Your task to perform on an android device: Open Youtube and go to "Your channel" Image 0: 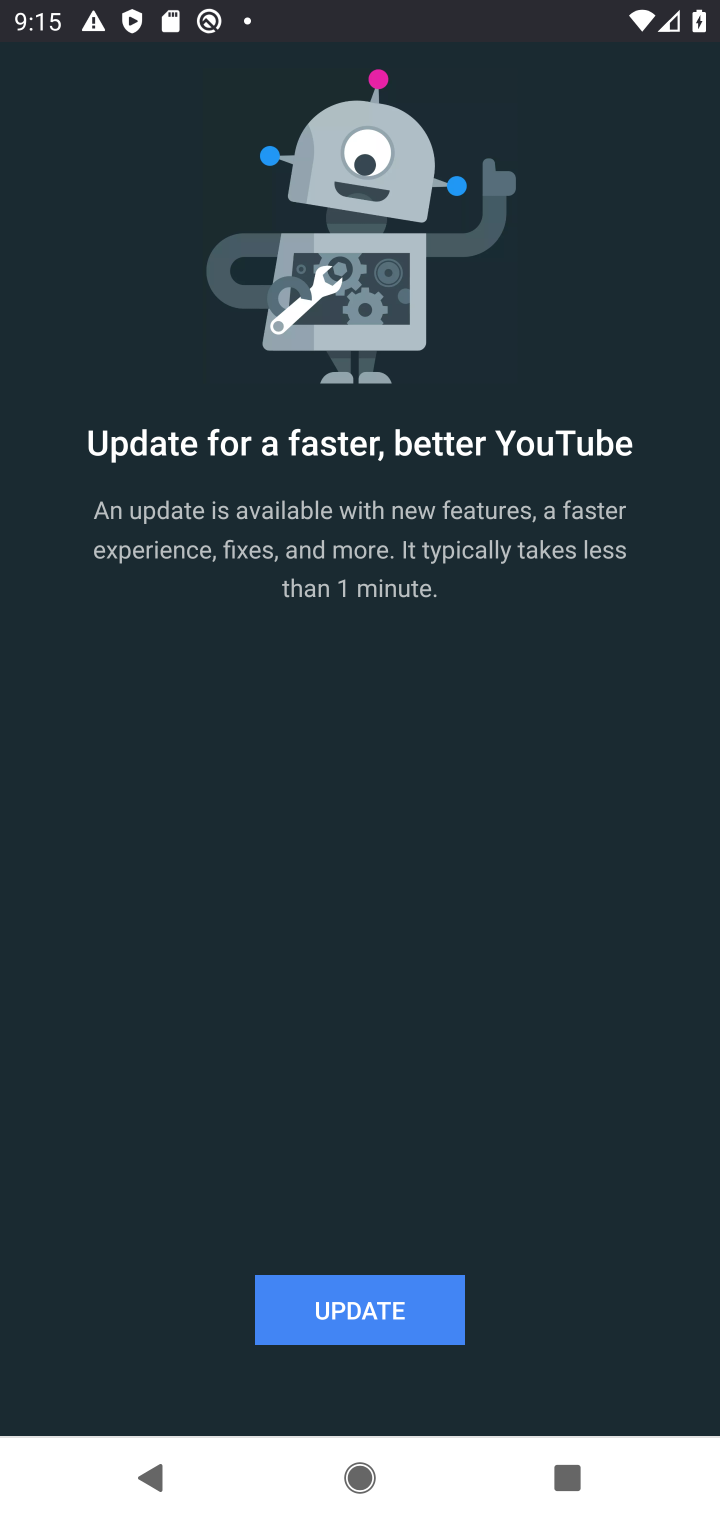
Step 0: press home button
Your task to perform on an android device: Open Youtube and go to "Your channel" Image 1: 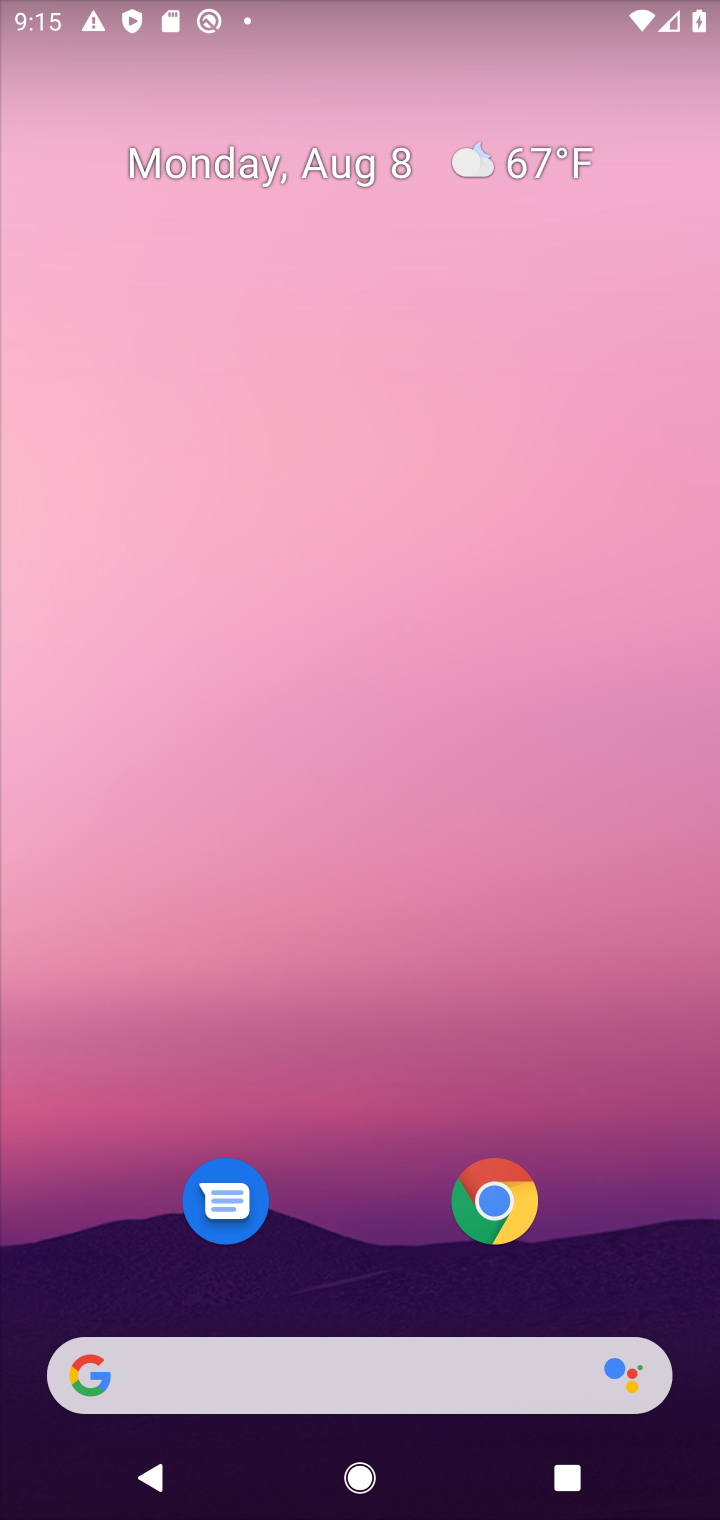
Step 1: drag from (357, 1232) to (364, 390)
Your task to perform on an android device: Open Youtube and go to "Your channel" Image 2: 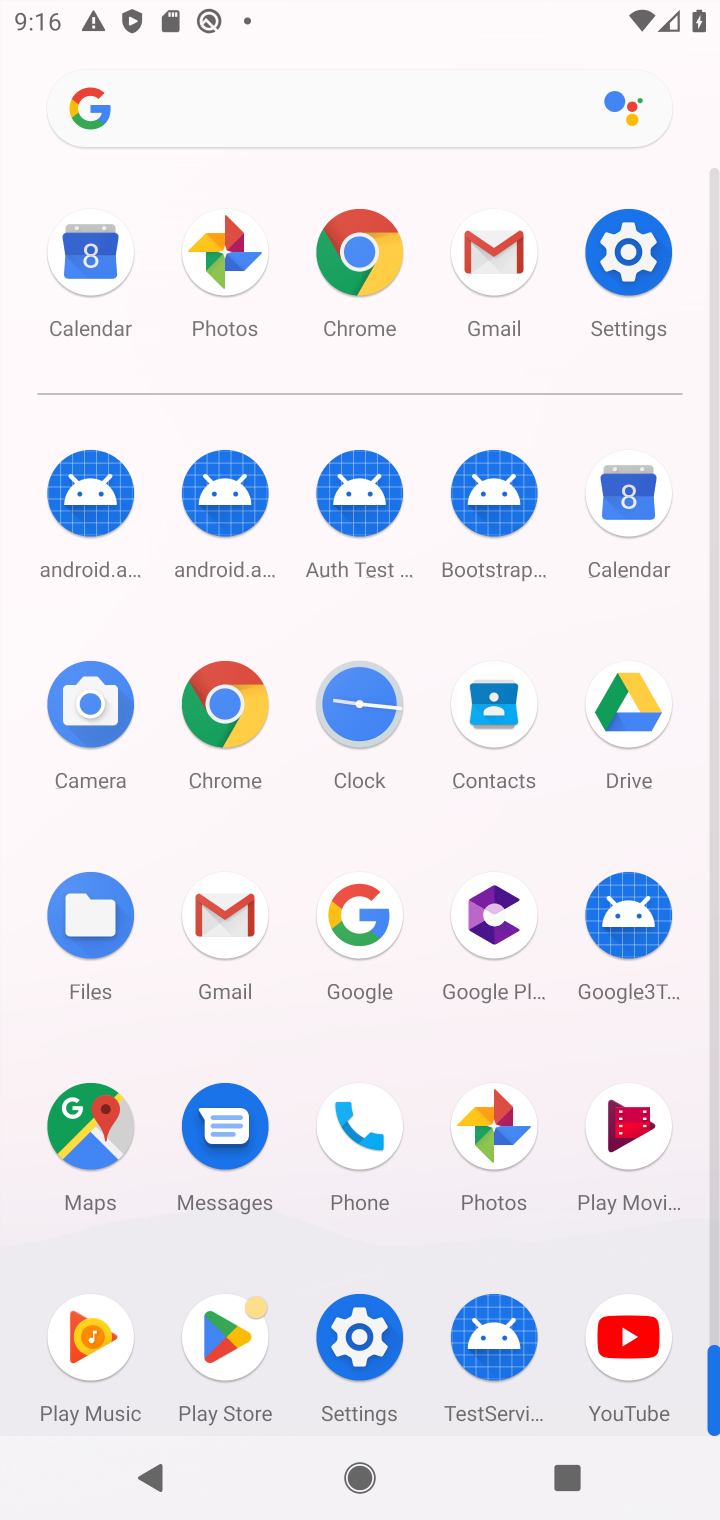
Step 2: click (624, 1345)
Your task to perform on an android device: Open Youtube and go to "Your channel" Image 3: 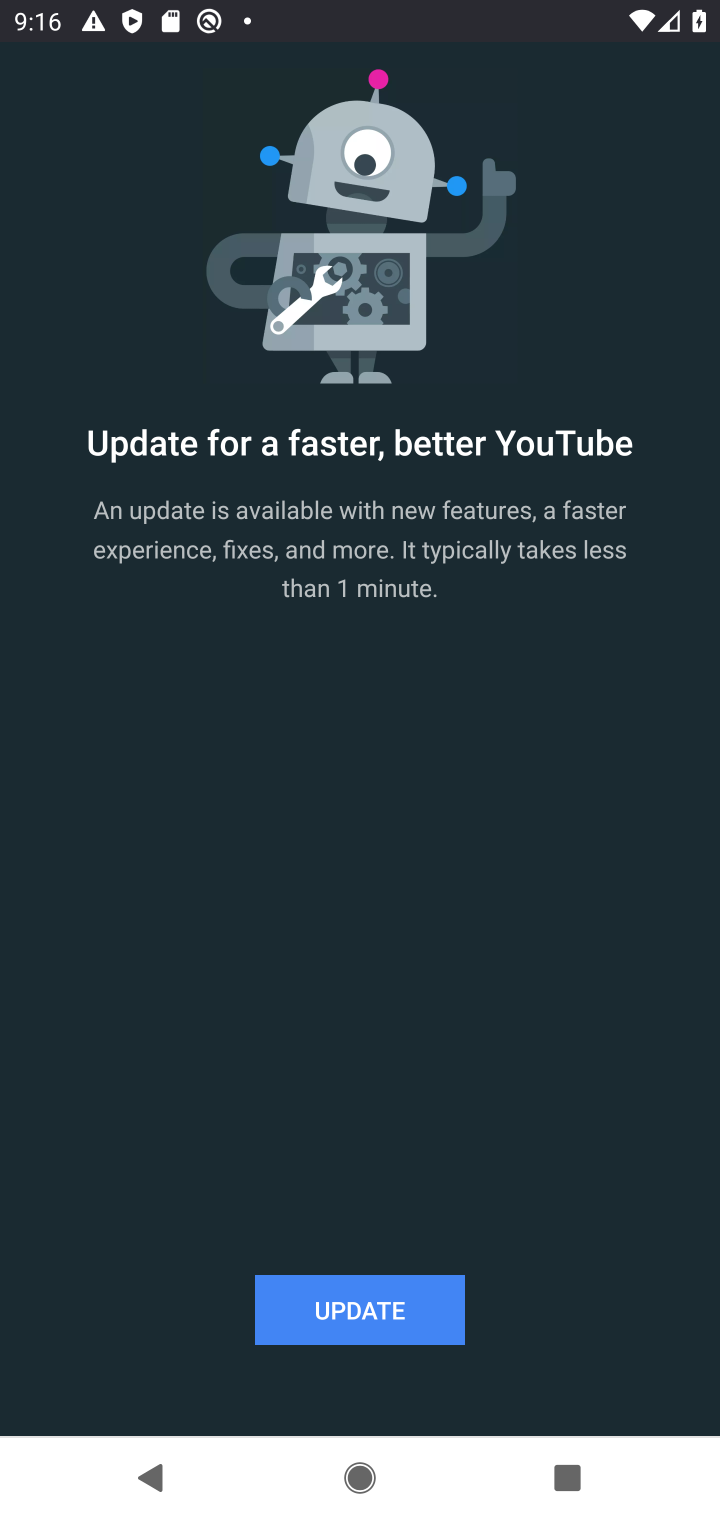
Step 3: click (373, 1307)
Your task to perform on an android device: Open Youtube and go to "Your channel" Image 4: 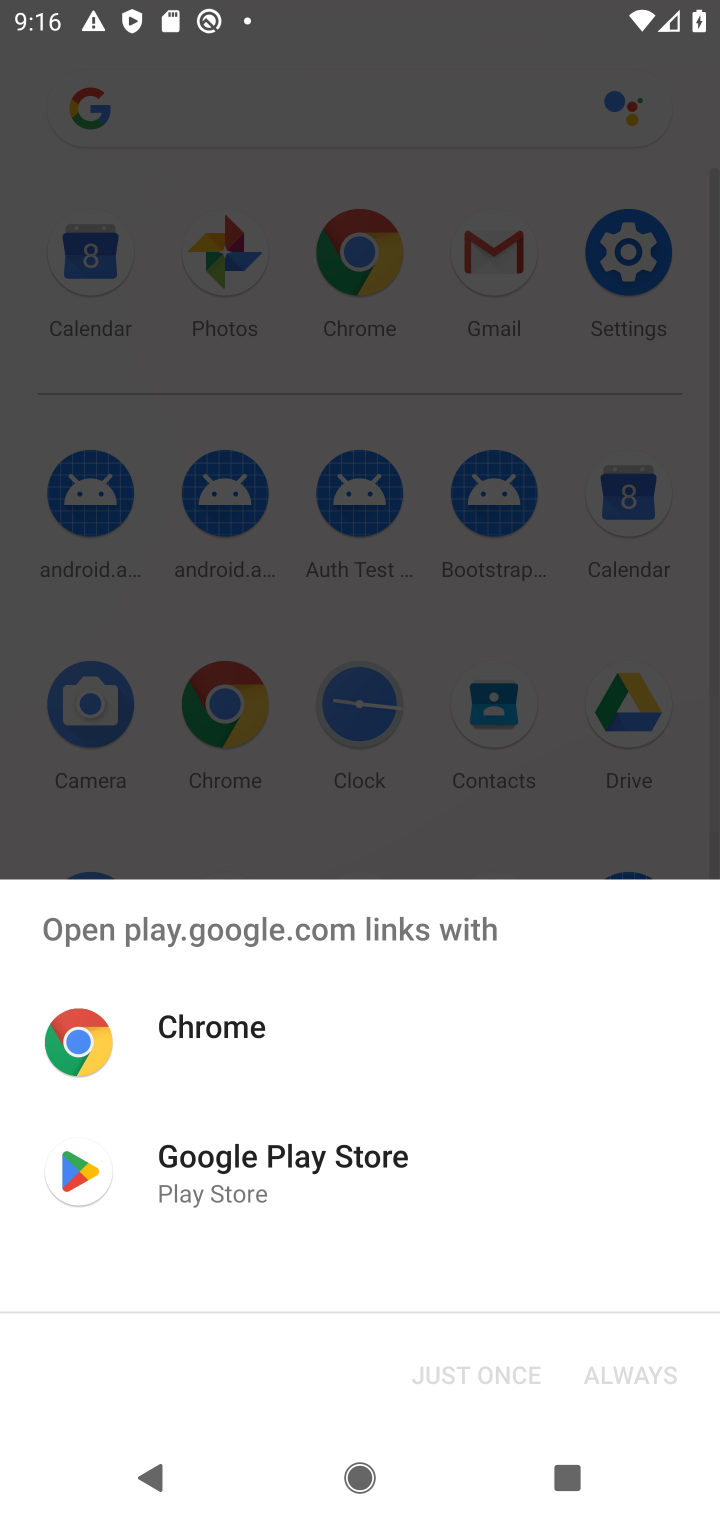
Step 4: click (176, 1155)
Your task to perform on an android device: Open Youtube and go to "Your channel" Image 5: 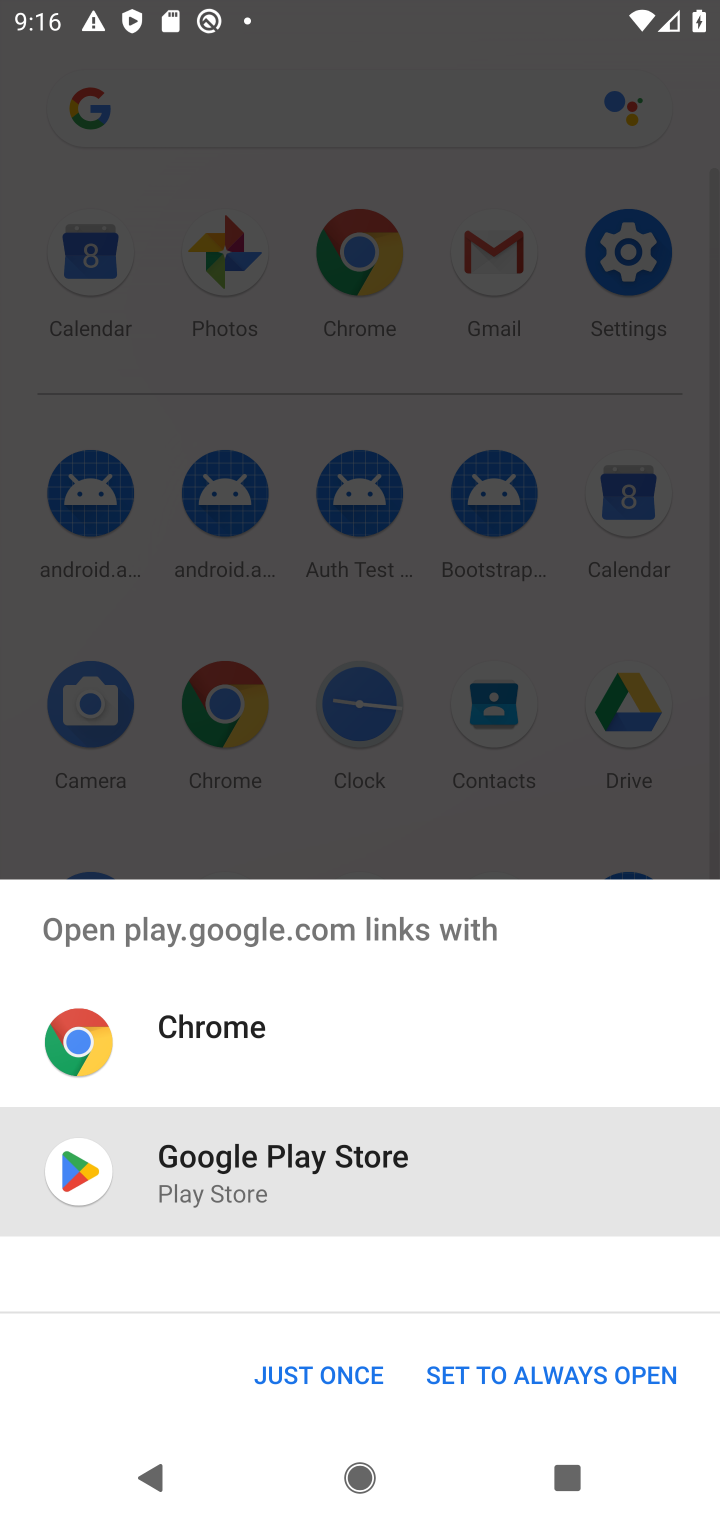
Step 5: click (330, 1382)
Your task to perform on an android device: Open Youtube and go to "Your channel" Image 6: 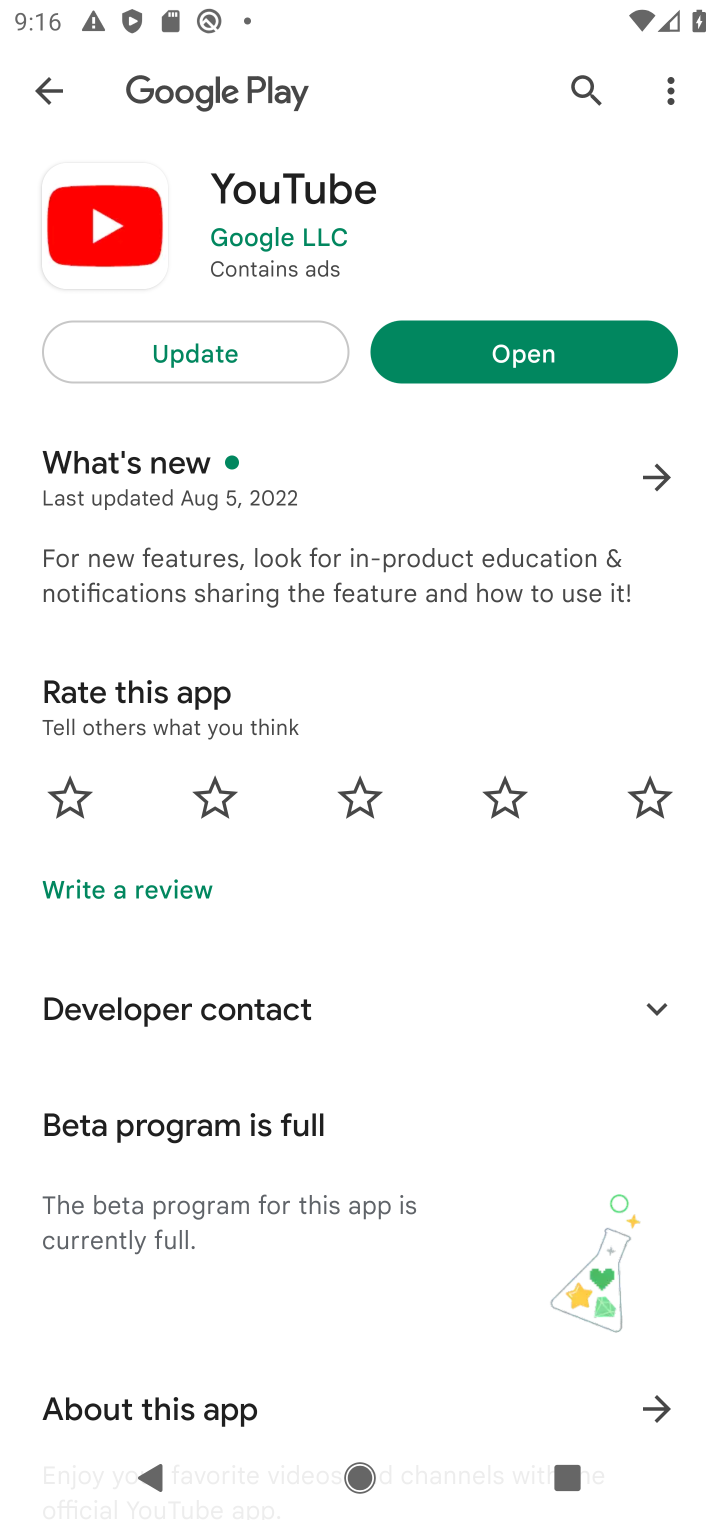
Step 6: click (209, 345)
Your task to perform on an android device: Open Youtube and go to "Your channel" Image 7: 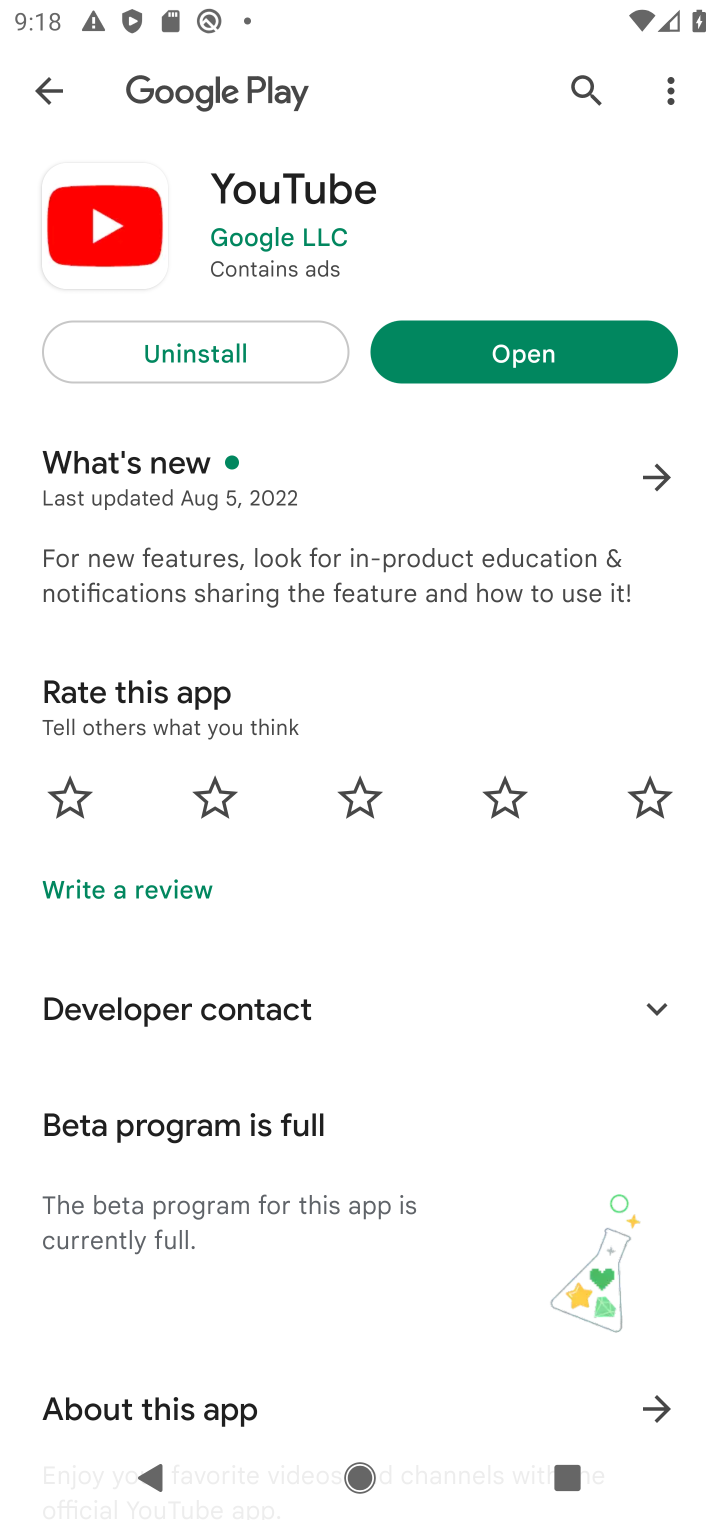
Step 7: click (492, 350)
Your task to perform on an android device: Open Youtube and go to "Your channel" Image 8: 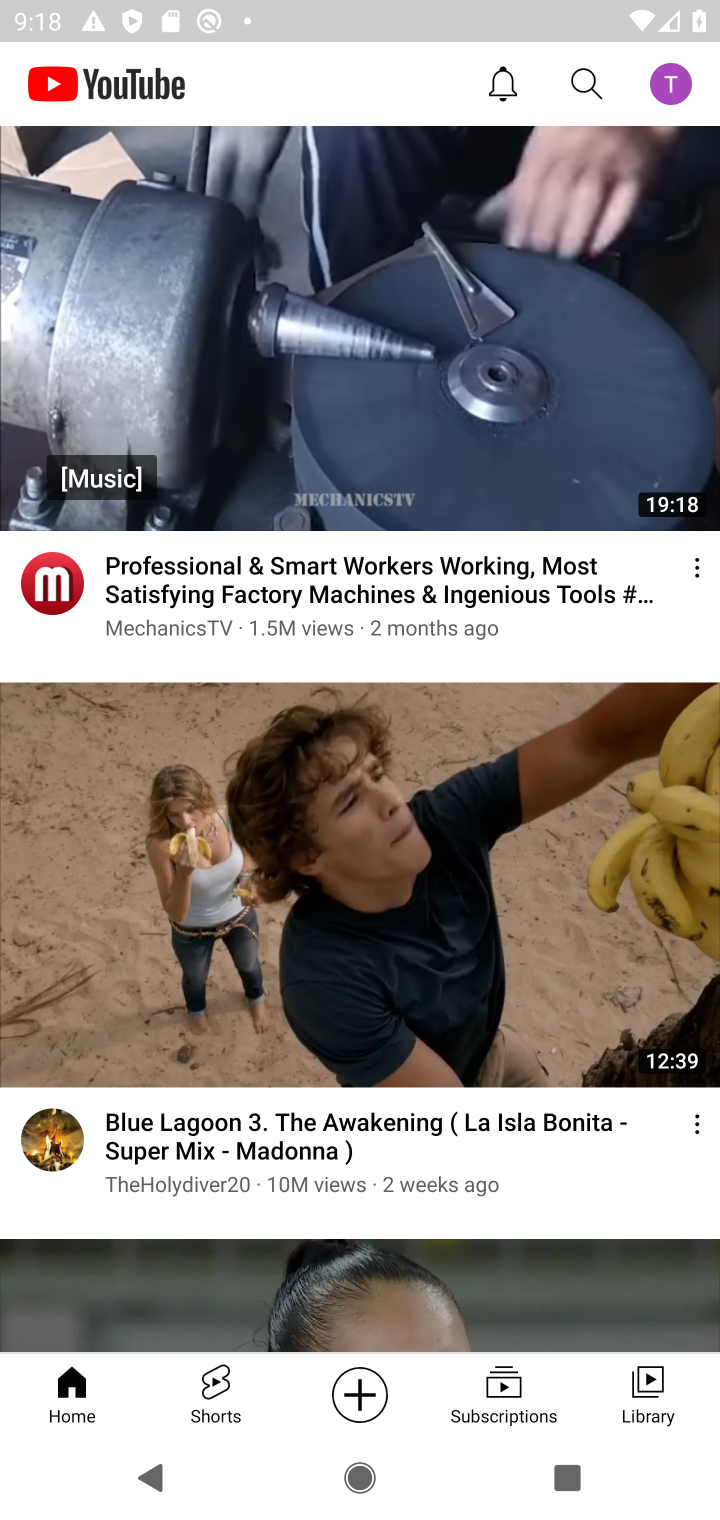
Step 8: click (668, 78)
Your task to perform on an android device: Open Youtube and go to "Your channel" Image 9: 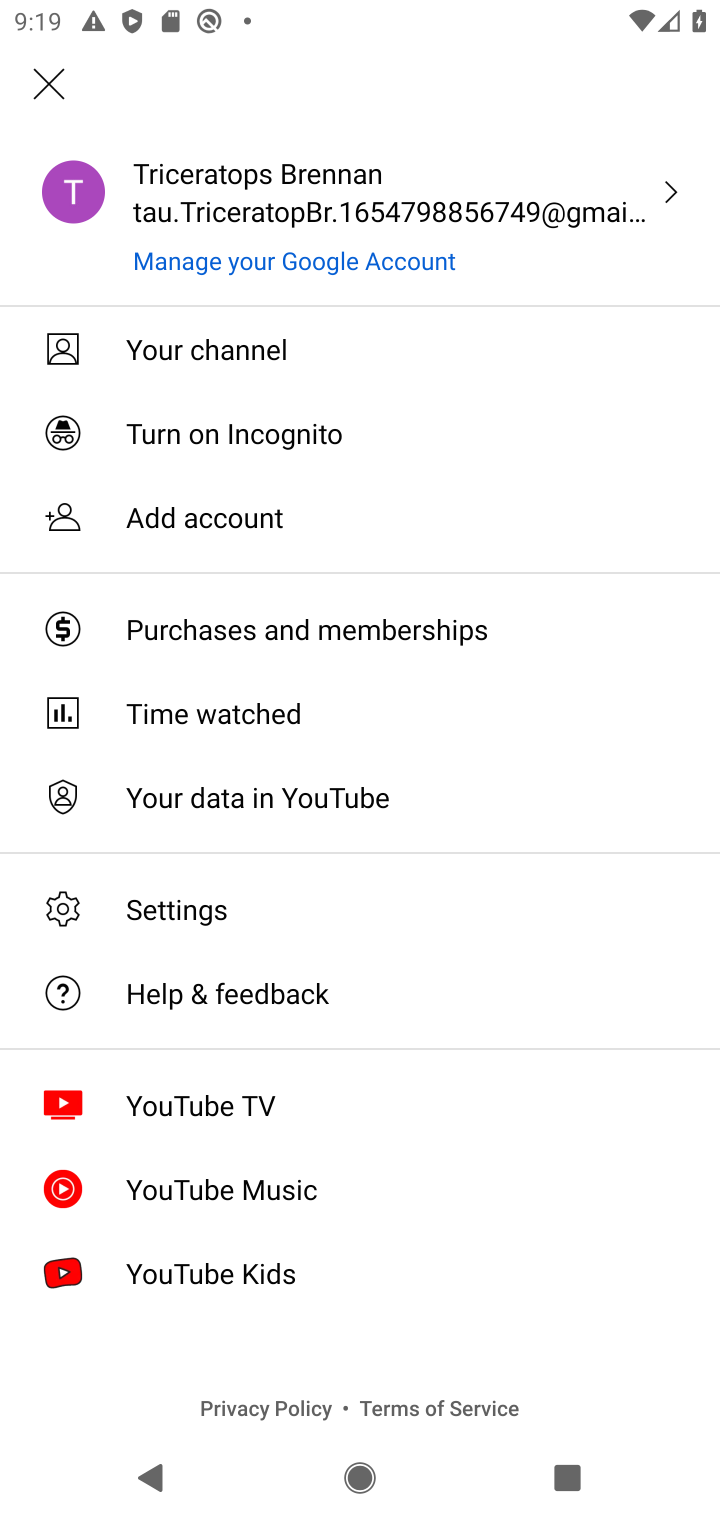
Step 9: click (273, 340)
Your task to perform on an android device: Open Youtube and go to "Your channel" Image 10: 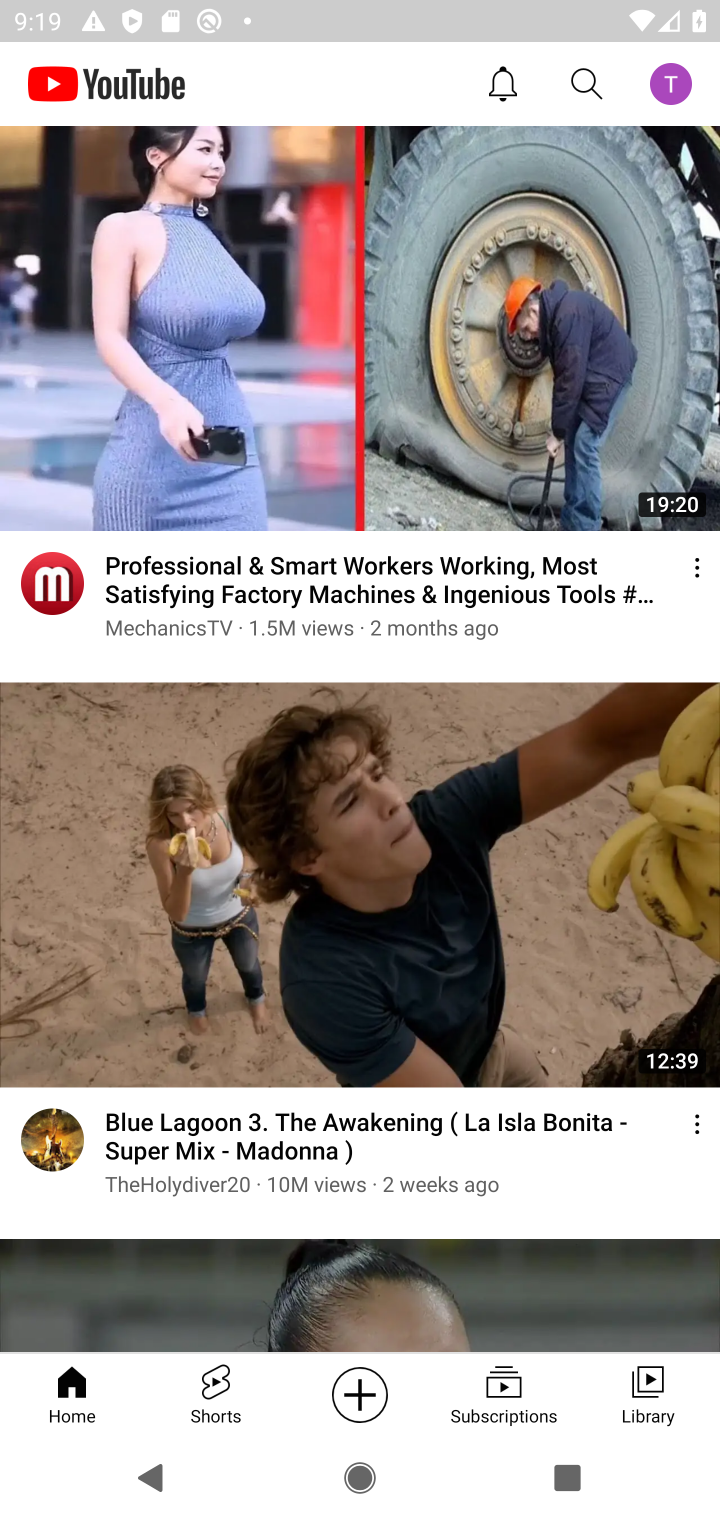
Step 10: task complete